Your task to perform on an android device: Go to CNN.com Image 0: 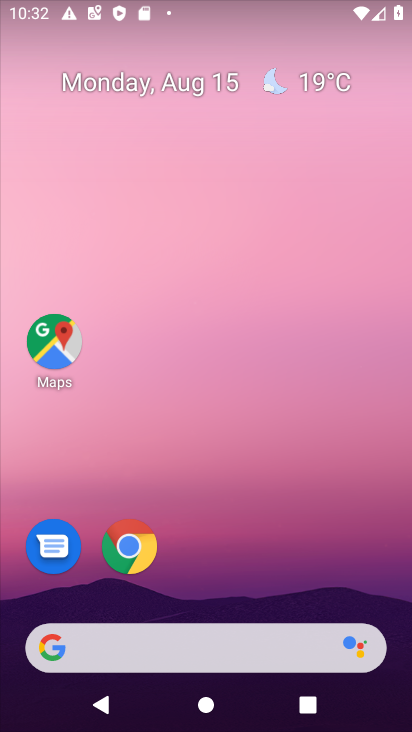
Step 0: click (129, 539)
Your task to perform on an android device: Go to CNN.com Image 1: 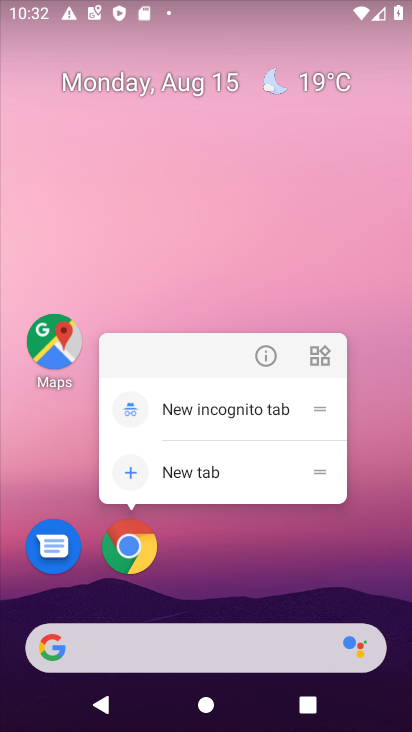
Step 1: click (125, 536)
Your task to perform on an android device: Go to CNN.com Image 2: 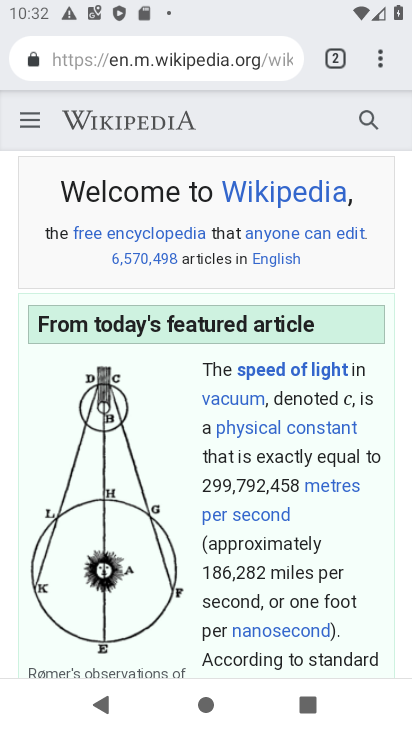
Step 2: click (381, 67)
Your task to perform on an android device: Go to CNN.com Image 3: 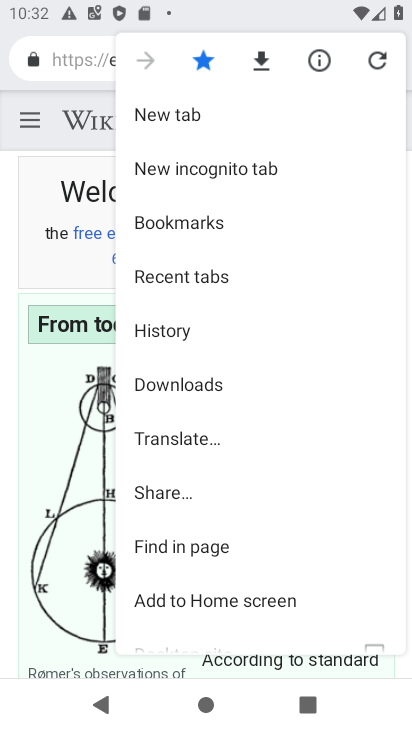
Step 3: click (150, 112)
Your task to perform on an android device: Go to CNN.com Image 4: 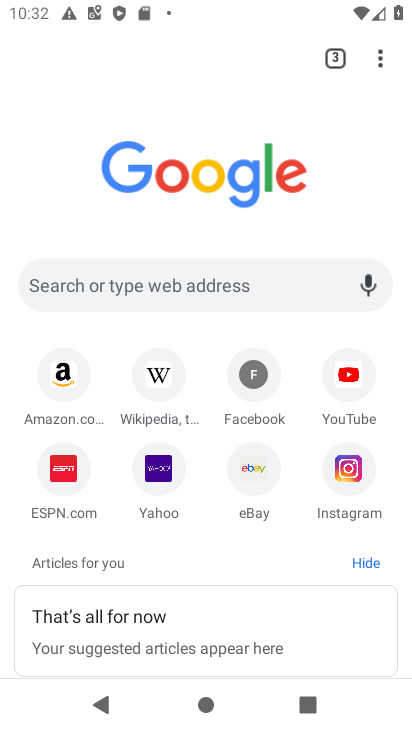
Step 4: click (189, 283)
Your task to perform on an android device: Go to CNN.com Image 5: 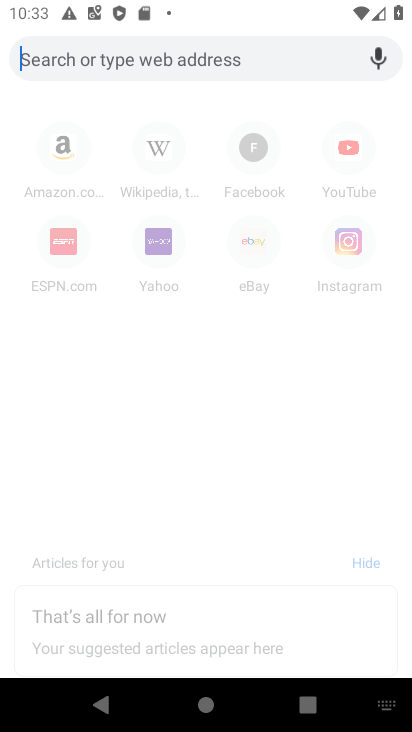
Step 5: type "CNN.com"
Your task to perform on an android device: Go to CNN.com Image 6: 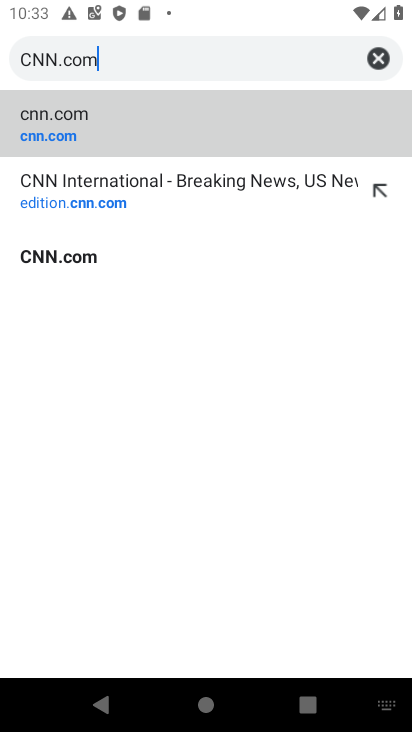
Step 6: click (49, 118)
Your task to perform on an android device: Go to CNN.com Image 7: 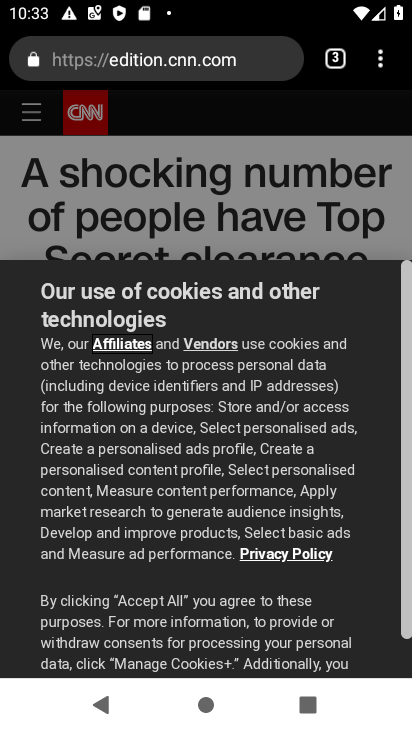
Step 7: task complete